Your task to perform on an android device: toggle wifi Image 0: 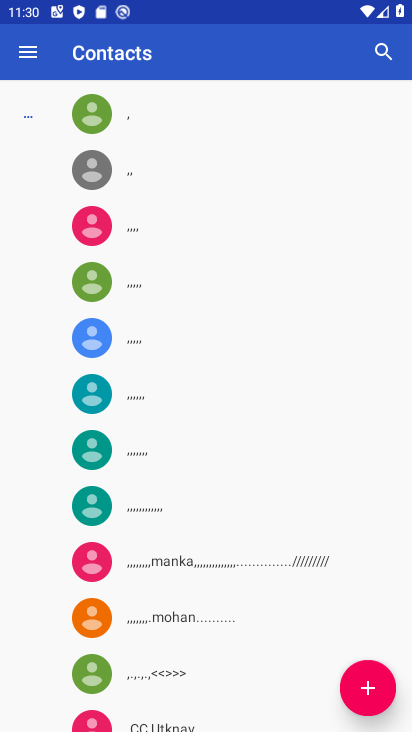
Step 0: press home button
Your task to perform on an android device: toggle wifi Image 1: 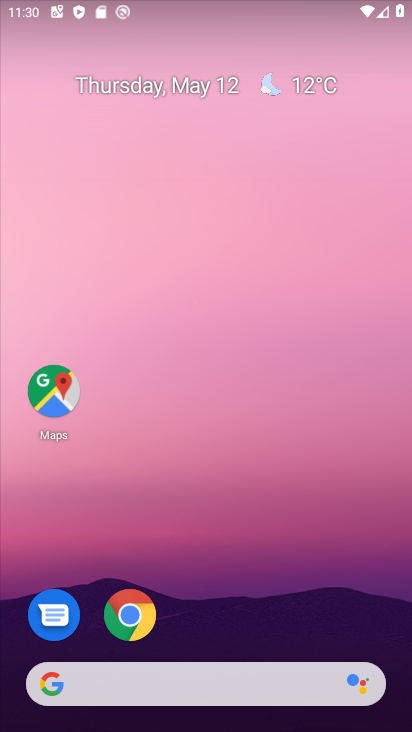
Step 1: drag from (216, 504) to (237, 3)
Your task to perform on an android device: toggle wifi Image 2: 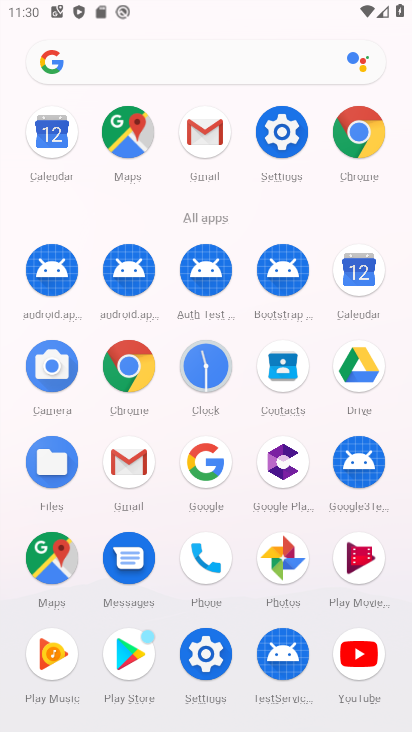
Step 2: click (274, 126)
Your task to perform on an android device: toggle wifi Image 3: 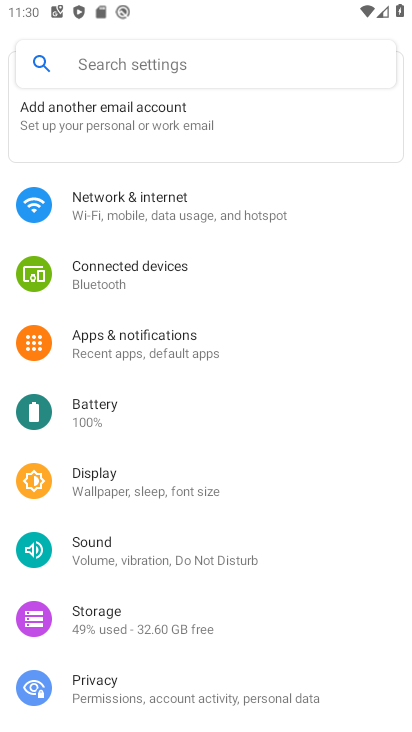
Step 3: click (241, 210)
Your task to perform on an android device: toggle wifi Image 4: 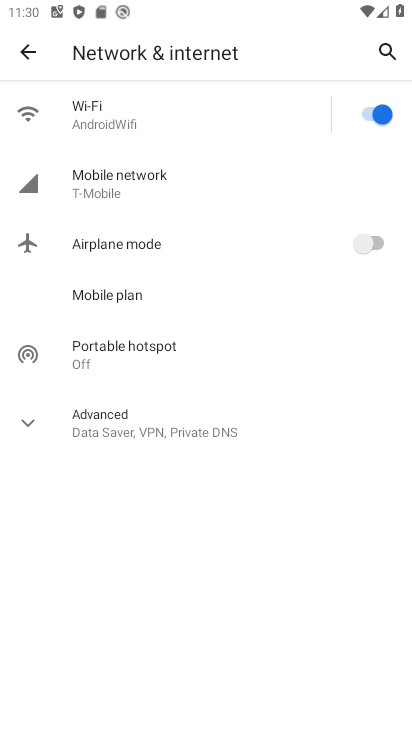
Step 4: click (370, 105)
Your task to perform on an android device: toggle wifi Image 5: 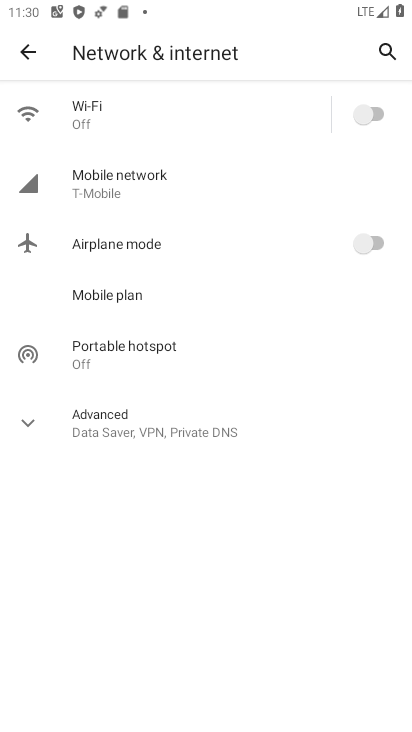
Step 5: task complete